Your task to perform on an android device: Clear all items from cart on ebay.com. Search for lenovo thinkpad on ebay.com, select the first entry, add it to the cart, then select checkout. Image 0: 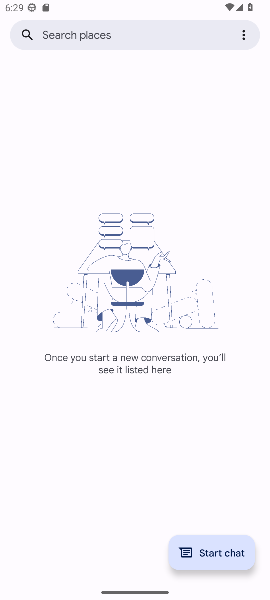
Step 0: press home button
Your task to perform on an android device: Clear all items from cart on ebay.com. Search for lenovo thinkpad on ebay.com, select the first entry, add it to the cart, then select checkout. Image 1: 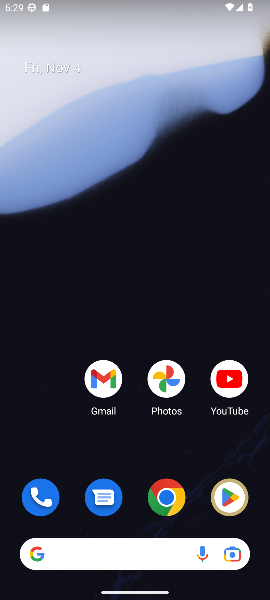
Step 1: click (170, 501)
Your task to perform on an android device: Clear all items from cart on ebay.com. Search for lenovo thinkpad on ebay.com, select the first entry, add it to the cart, then select checkout. Image 2: 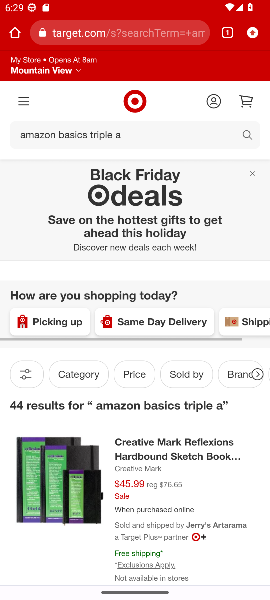
Step 2: click (85, 28)
Your task to perform on an android device: Clear all items from cart on ebay.com. Search for lenovo thinkpad on ebay.com, select the first entry, add it to the cart, then select checkout. Image 3: 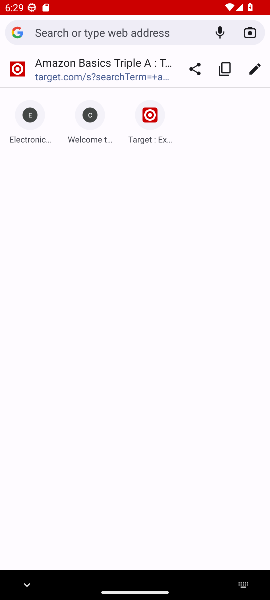
Step 3: type "ebay.com"
Your task to perform on an android device: Clear all items from cart on ebay.com. Search for lenovo thinkpad on ebay.com, select the first entry, add it to the cart, then select checkout. Image 4: 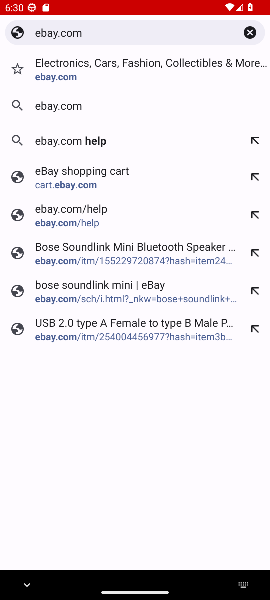
Step 4: click (48, 77)
Your task to perform on an android device: Clear all items from cart on ebay.com. Search for lenovo thinkpad on ebay.com, select the first entry, add it to the cart, then select checkout. Image 5: 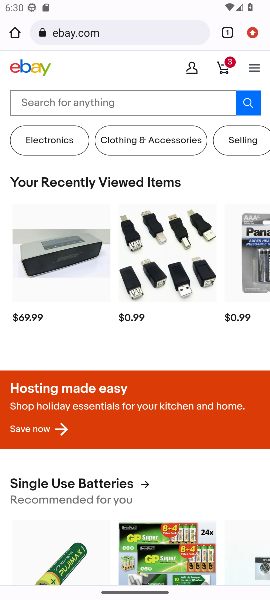
Step 5: click (226, 60)
Your task to perform on an android device: Clear all items from cart on ebay.com. Search for lenovo thinkpad on ebay.com, select the first entry, add it to the cart, then select checkout. Image 6: 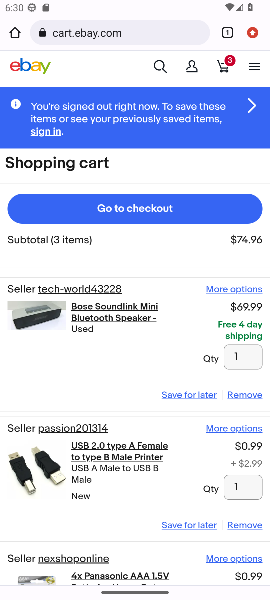
Step 6: click (243, 395)
Your task to perform on an android device: Clear all items from cart on ebay.com. Search for lenovo thinkpad on ebay.com, select the first entry, add it to the cart, then select checkout. Image 7: 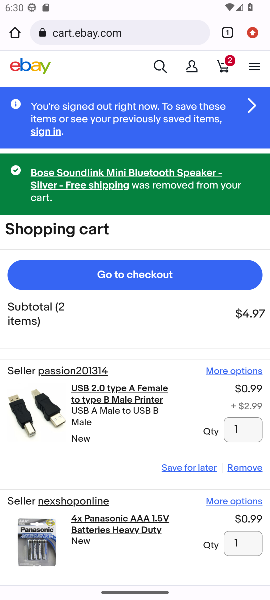
Step 7: click (233, 471)
Your task to perform on an android device: Clear all items from cart on ebay.com. Search for lenovo thinkpad on ebay.com, select the first entry, add it to the cart, then select checkout. Image 8: 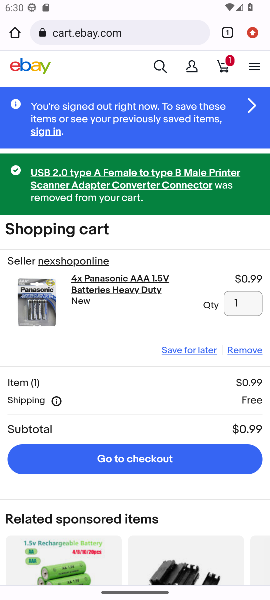
Step 8: click (246, 351)
Your task to perform on an android device: Clear all items from cart on ebay.com. Search for lenovo thinkpad on ebay.com, select the first entry, add it to the cart, then select checkout. Image 9: 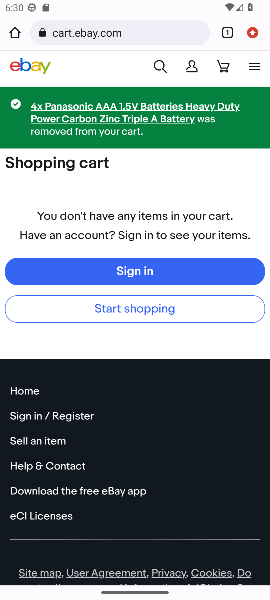
Step 9: click (162, 70)
Your task to perform on an android device: Clear all items from cart on ebay.com. Search for lenovo thinkpad on ebay.com, select the first entry, add it to the cart, then select checkout. Image 10: 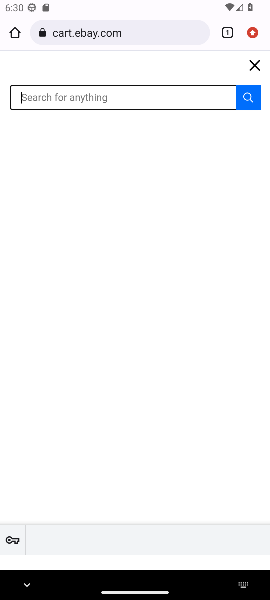
Step 10: type "lenovo thinkpad "
Your task to perform on an android device: Clear all items from cart on ebay.com. Search for lenovo thinkpad on ebay.com, select the first entry, add it to the cart, then select checkout. Image 11: 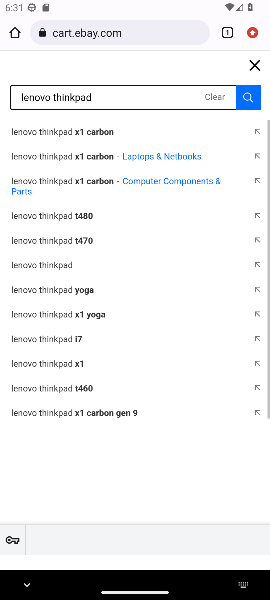
Step 11: click (253, 97)
Your task to perform on an android device: Clear all items from cart on ebay.com. Search for lenovo thinkpad on ebay.com, select the first entry, add it to the cart, then select checkout. Image 12: 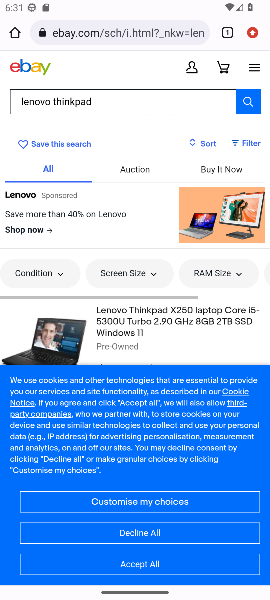
Step 12: click (84, 340)
Your task to perform on an android device: Clear all items from cart on ebay.com. Search for lenovo thinkpad on ebay.com, select the first entry, add it to the cart, then select checkout. Image 13: 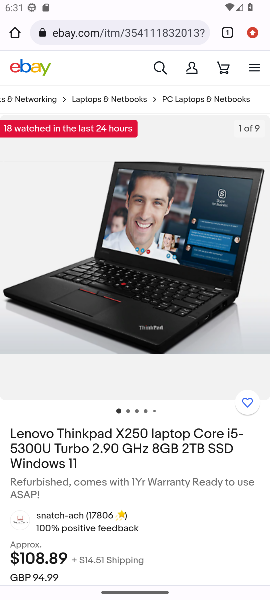
Step 13: drag from (145, 472) to (164, 229)
Your task to perform on an android device: Clear all items from cart on ebay.com. Search for lenovo thinkpad on ebay.com, select the first entry, add it to the cart, then select checkout. Image 14: 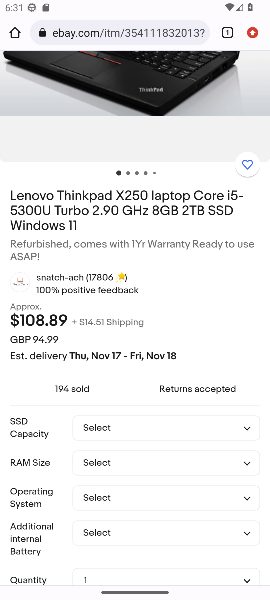
Step 14: drag from (163, 425) to (152, 172)
Your task to perform on an android device: Clear all items from cart on ebay.com. Search for lenovo thinkpad on ebay.com, select the first entry, add it to the cart, then select checkout. Image 15: 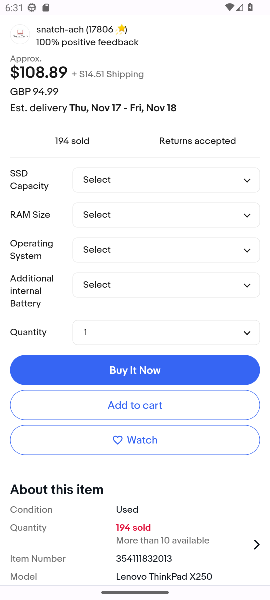
Step 15: click (136, 405)
Your task to perform on an android device: Clear all items from cart on ebay.com. Search for lenovo thinkpad on ebay.com, select the first entry, add it to the cart, then select checkout. Image 16: 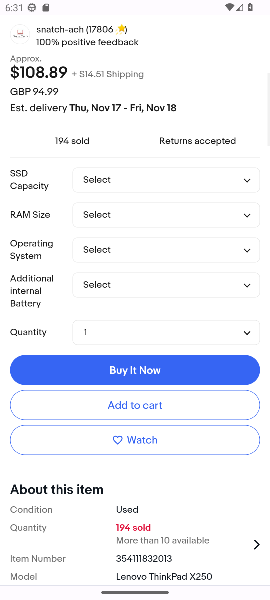
Step 16: click (113, 407)
Your task to perform on an android device: Clear all items from cart on ebay.com. Search for lenovo thinkpad on ebay.com, select the first entry, add it to the cart, then select checkout. Image 17: 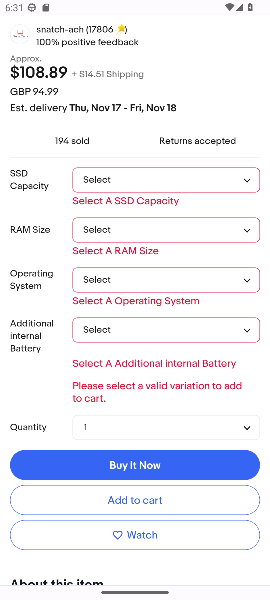
Step 17: click (246, 183)
Your task to perform on an android device: Clear all items from cart on ebay.com. Search for lenovo thinkpad on ebay.com, select the first entry, add it to the cart, then select checkout. Image 18: 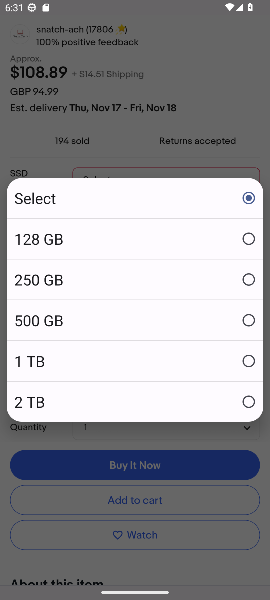
Step 18: click (57, 235)
Your task to perform on an android device: Clear all items from cart on ebay.com. Search for lenovo thinkpad on ebay.com, select the first entry, add it to the cart, then select checkout. Image 19: 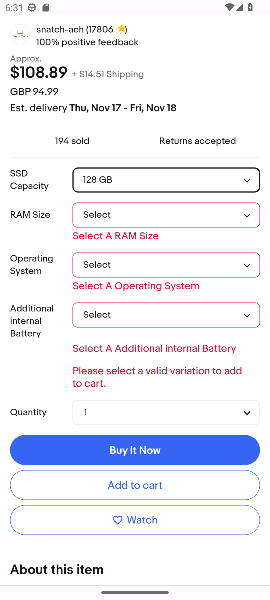
Step 19: click (249, 214)
Your task to perform on an android device: Clear all items from cart on ebay.com. Search for lenovo thinkpad on ebay.com, select the first entry, add it to the cart, then select checkout. Image 20: 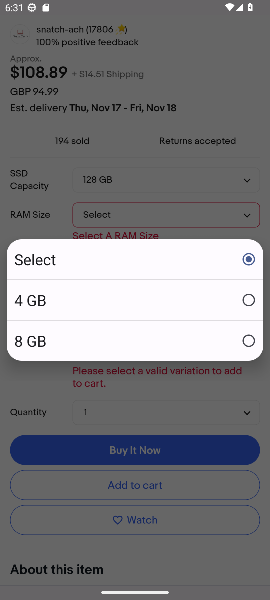
Step 20: click (17, 297)
Your task to perform on an android device: Clear all items from cart on ebay.com. Search for lenovo thinkpad on ebay.com, select the first entry, add it to the cart, then select checkout. Image 21: 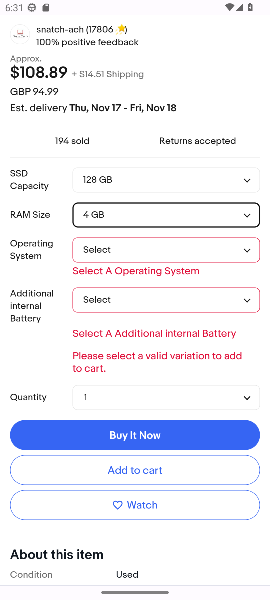
Step 21: click (245, 248)
Your task to perform on an android device: Clear all items from cart on ebay.com. Search for lenovo thinkpad on ebay.com, select the first entry, add it to the cart, then select checkout. Image 22: 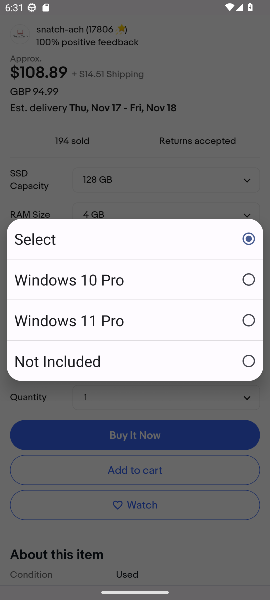
Step 22: click (82, 283)
Your task to perform on an android device: Clear all items from cart on ebay.com. Search for lenovo thinkpad on ebay.com, select the first entry, add it to the cart, then select checkout. Image 23: 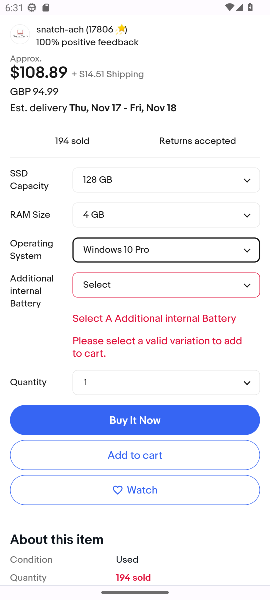
Step 23: click (247, 288)
Your task to perform on an android device: Clear all items from cart on ebay.com. Search for lenovo thinkpad on ebay.com, select the first entry, add it to the cart, then select checkout. Image 24: 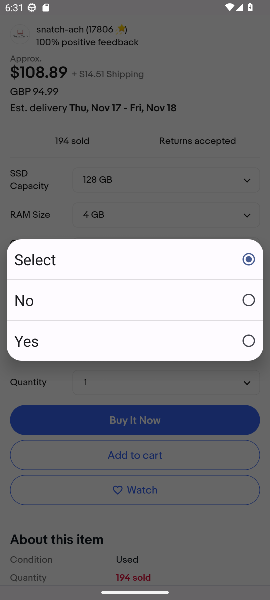
Step 24: click (40, 297)
Your task to perform on an android device: Clear all items from cart on ebay.com. Search for lenovo thinkpad on ebay.com, select the first entry, add it to the cart, then select checkout. Image 25: 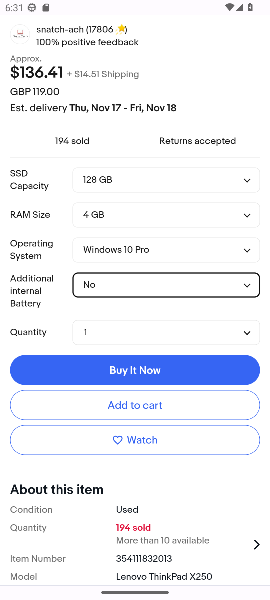
Step 25: click (131, 408)
Your task to perform on an android device: Clear all items from cart on ebay.com. Search for lenovo thinkpad on ebay.com, select the first entry, add it to the cart, then select checkout. Image 26: 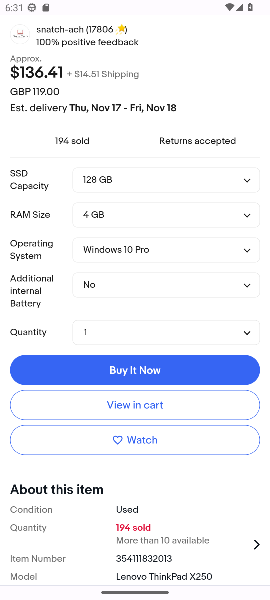
Step 26: click (131, 408)
Your task to perform on an android device: Clear all items from cart on ebay.com. Search for lenovo thinkpad on ebay.com, select the first entry, add it to the cart, then select checkout. Image 27: 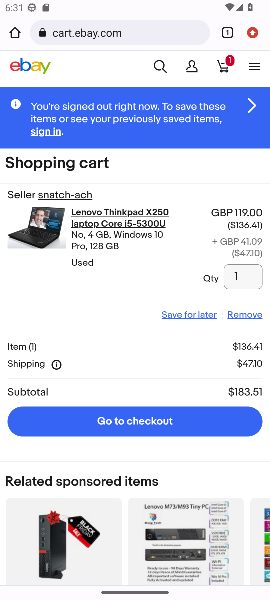
Step 27: click (131, 426)
Your task to perform on an android device: Clear all items from cart on ebay.com. Search for lenovo thinkpad on ebay.com, select the first entry, add it to the cart, then select checkout. Image 28: 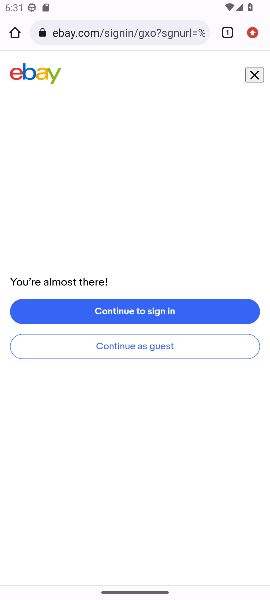
Step 28: task complete